Your task to perform on an android device: check the backup settings in the google photos Image 0: 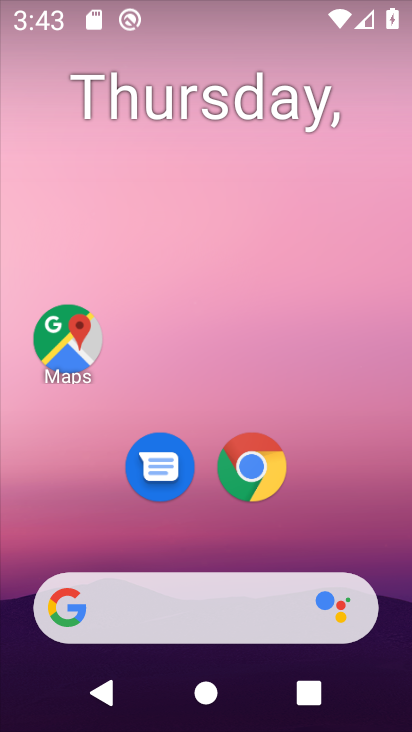
Step 0: drag from (307, 515) to (340, 23)
Your task to perform on an android device: check the backup settings in the google photos Image 1: 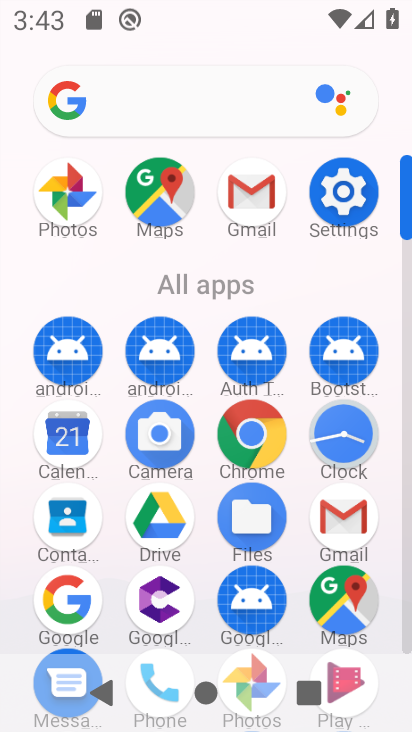
Step 1: drag from (203, 634) to (224, 405)
Your task to perform on an android device: check the backup settings in the google photos Image 2: 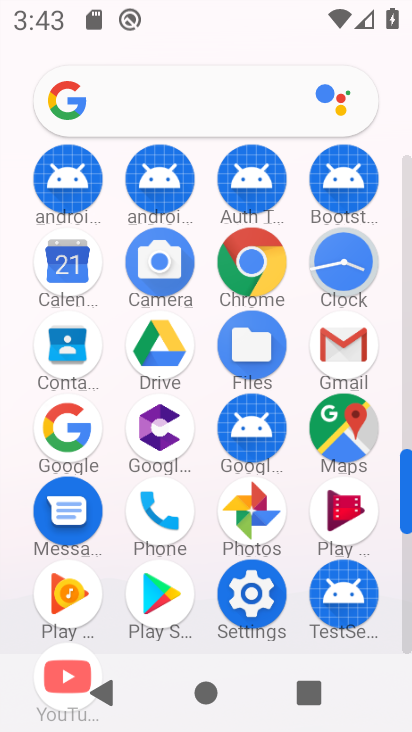
Step 2: click (249, 523)
Your task to perform on an android device: check the backup settings in the google photos Image 3: 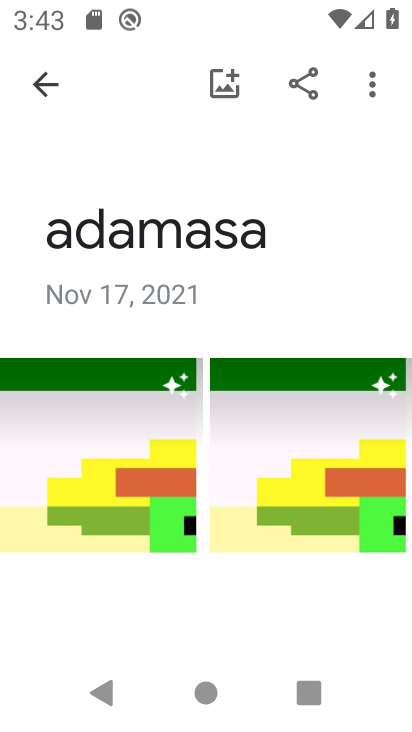
Step 3: click (30, 86)
Your task to perform on an android device: check the backup settings in the google photos Image 4: 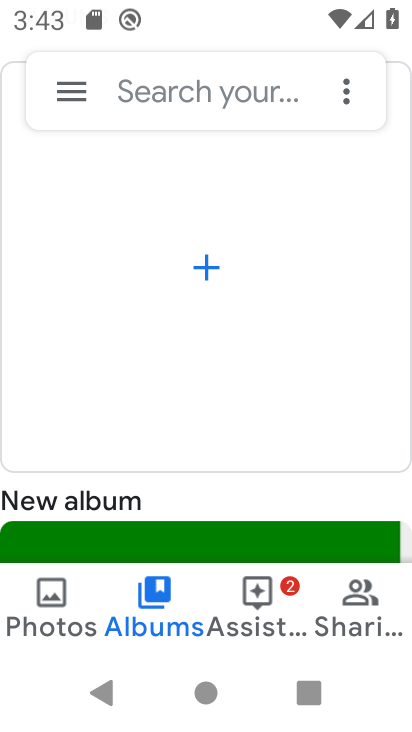
Step 4: click (79, 79)
Your task to perform on an android device: check the backup settings in the google photos Image 5: 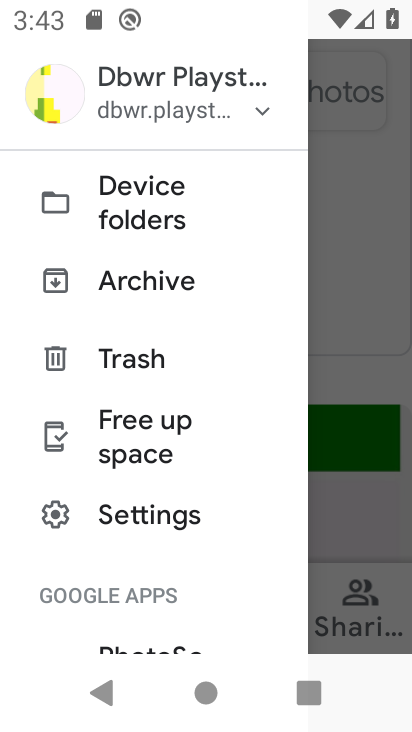
Step 5: click (118, 530)
Your task to perform on an android device: check the backup settings in the google photos Image 6: 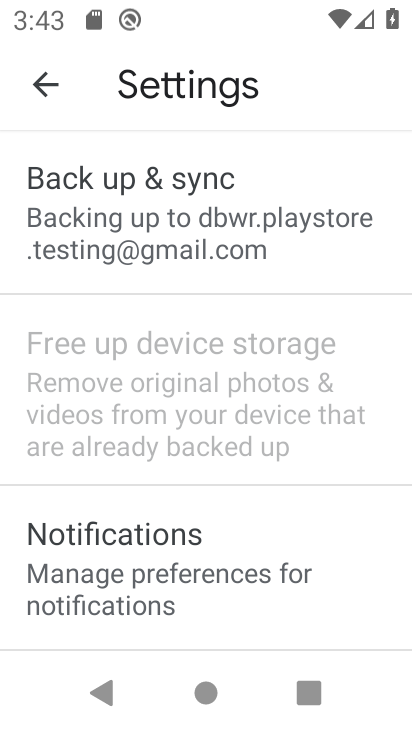
Step 6: click (114, 207)
Your task to perform on an android device: check the backup settings in the google photos Image 7: 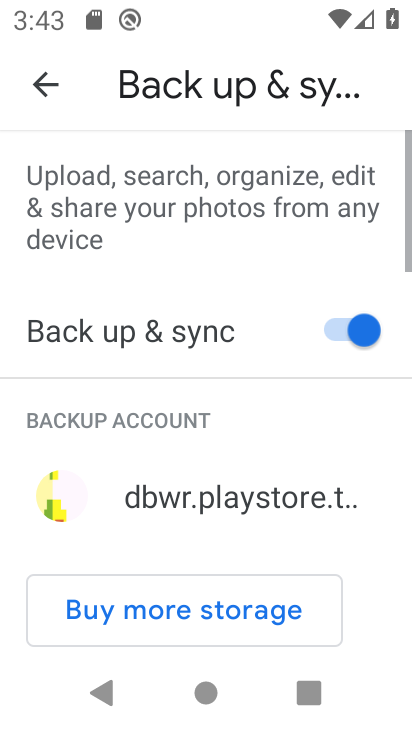
Step 7: task complete